Your task to perform on an android device: empty trash in the gmail app Image 0: 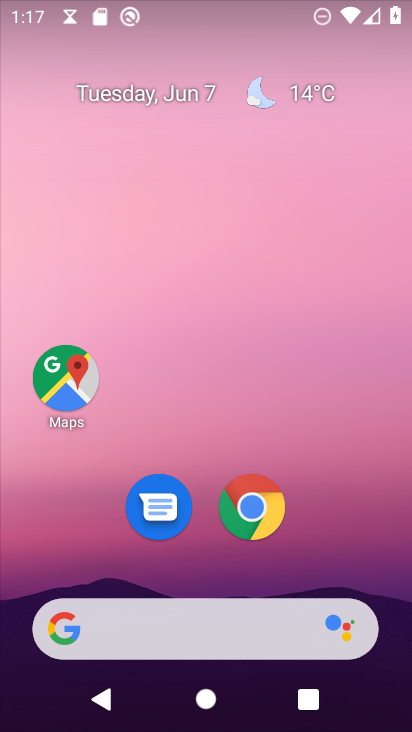
Step 0: drag from (328, 568) to (345, 34)
Your task to perform on an android device: empty trash in the gmail app Image 1: 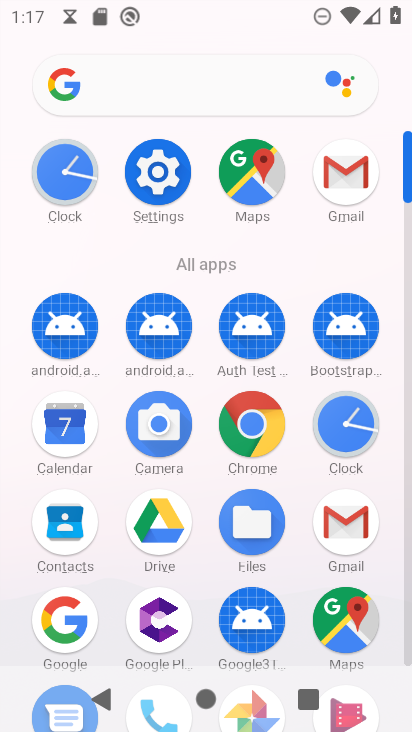
Step 1: click (339, 534)
Your task to perform on an android device: empty trash in the gmail app Image 2: 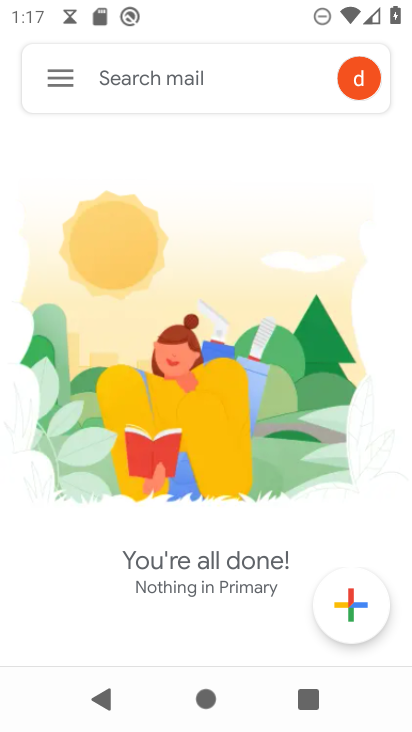
Step 2: click (71, 86)
Your task to perform on an android device: empty trash in the gmail app Image 3: 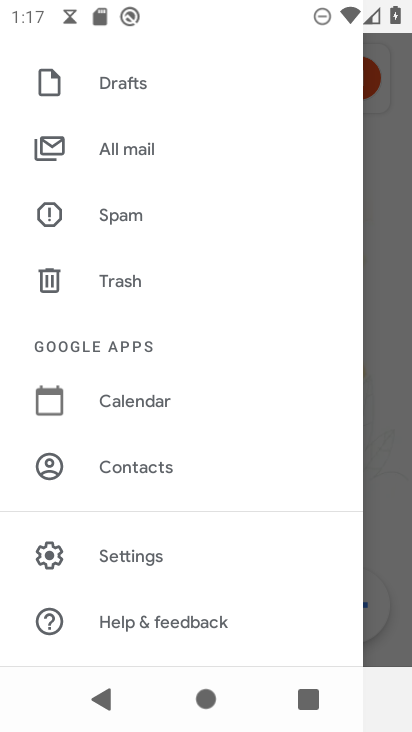
Step 3: click (128, 295)
Your task to perform on an android device: empty trash in the gmail app Image 4: 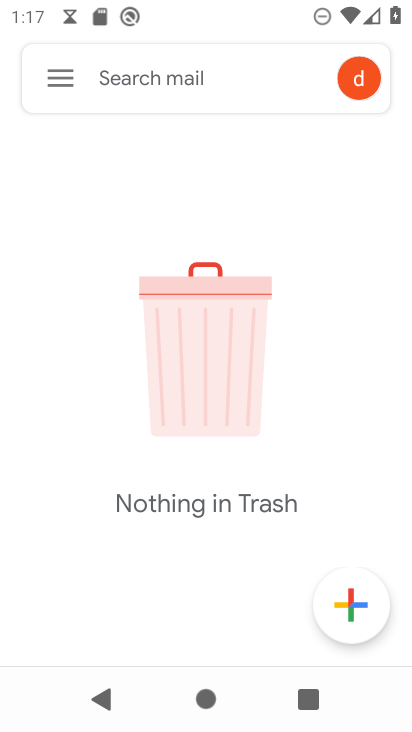
Step 4: task complete